Your task to perform on an android device: empty trash in google photos Image 0: 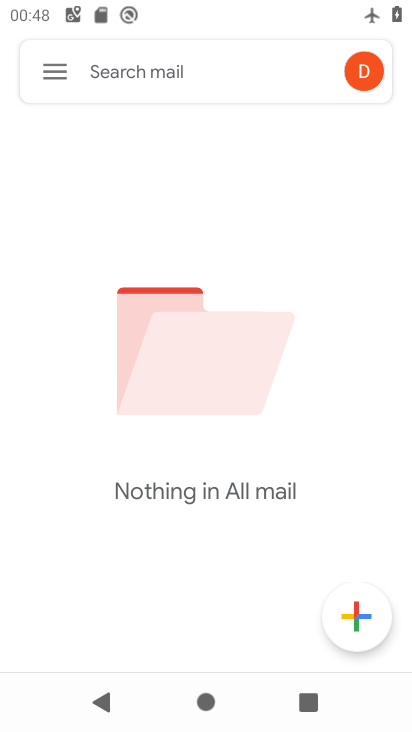
Step 0: press home button
Your task to perform on an android device: empty trash in google photos Image 1: 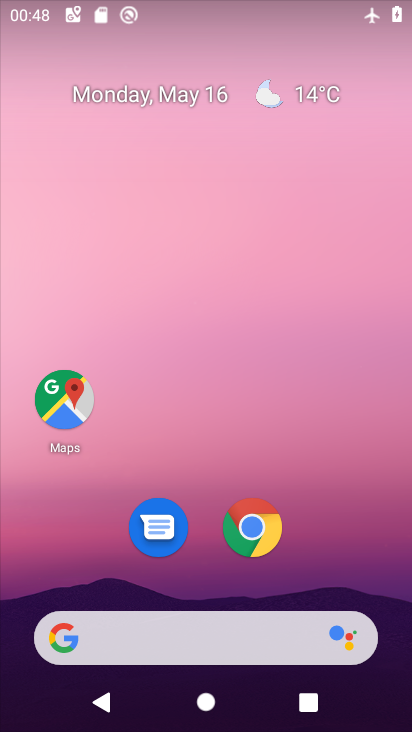
Step 1: drag from (218, 584) to (293, 26)
Your task to perform on an android device: empty trash in google photos Image 2: 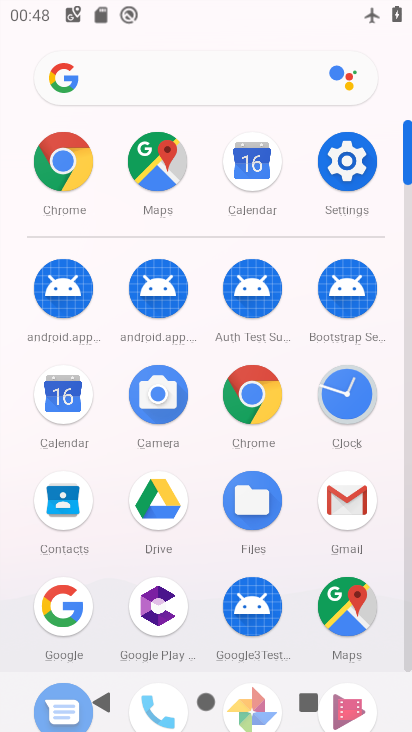
Step 2: drag from (192, 614) to (252, 346)
Your task to perform on an android device: empty trash in google photos Image 3: 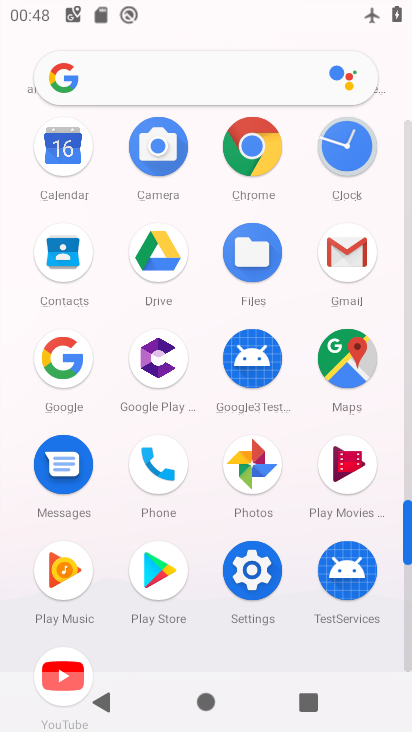
Step 3: click (268, 474)
Your task to perform on an android device: empty trash in google photos Image 4: 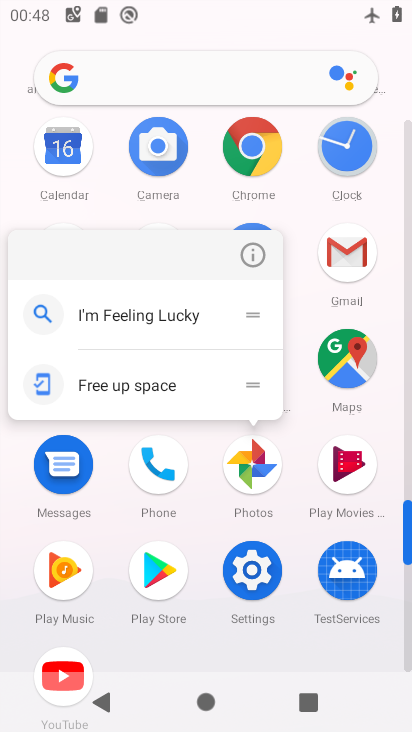
Step 4: click (269, 483)
Your task to perform on an android device: empty trash in google photos Image 5: 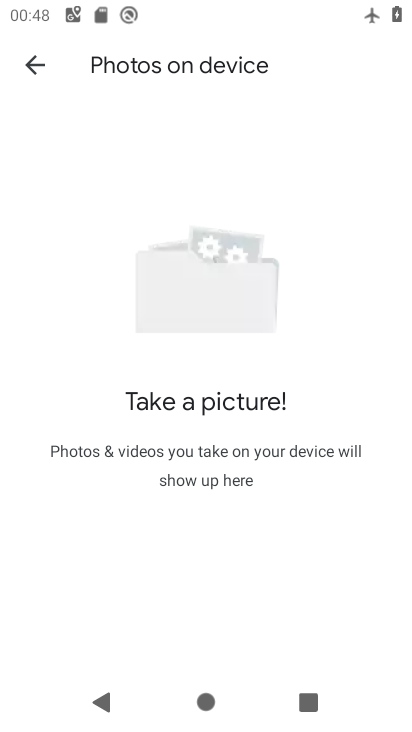
Step 5: click (36, 71)
Your task to perform on an android device: empty trash in google photos Image 6: 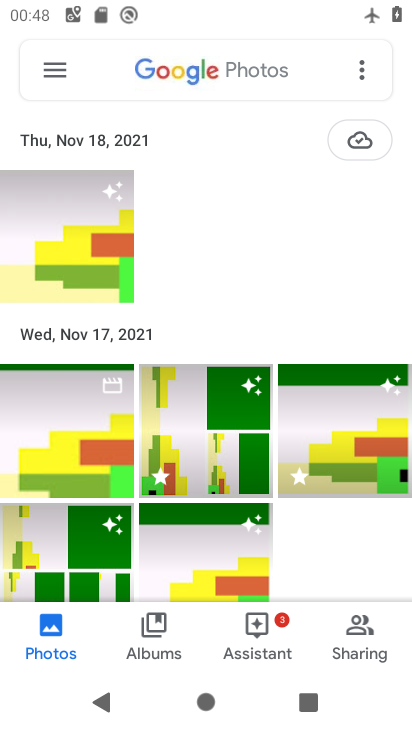
Step 6: click (38, 70)
Your task to perform on an android device: empty trash in google photos Image 7: 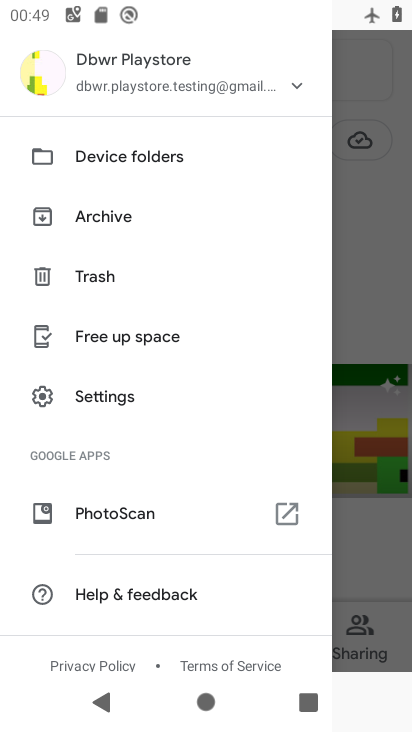
Step 7: click (116, 274)
Your task to perform on an android device: empty trash in google photos Image 8: 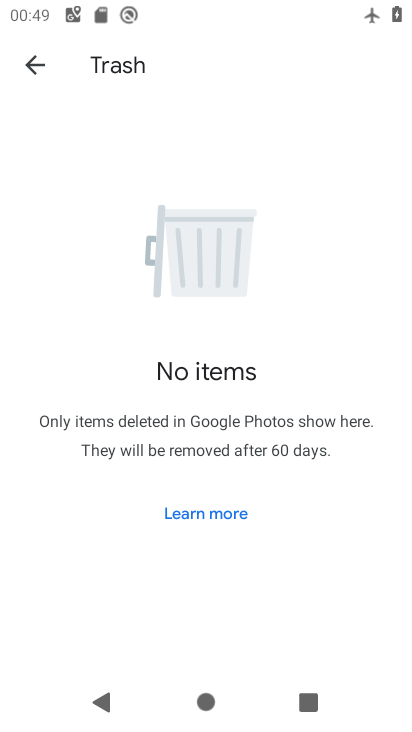
Step 8: task complete